Your task to perform on an android device: turn off airplane mode Image 0: 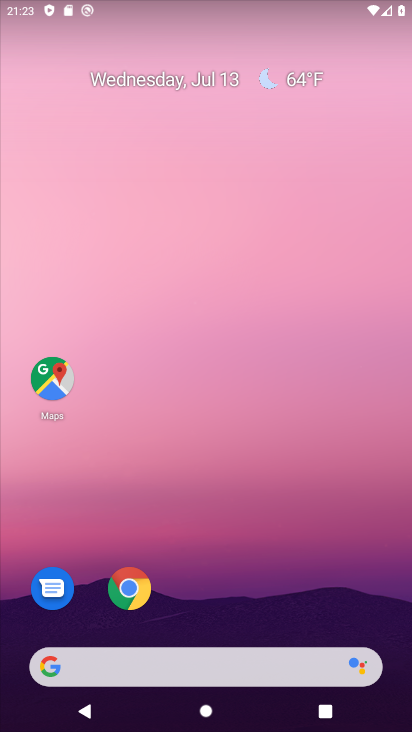
Step 0: drag from (363, 11) to (287, 560)
Your task to perform on an android device: turn off airplane mode Image 1: 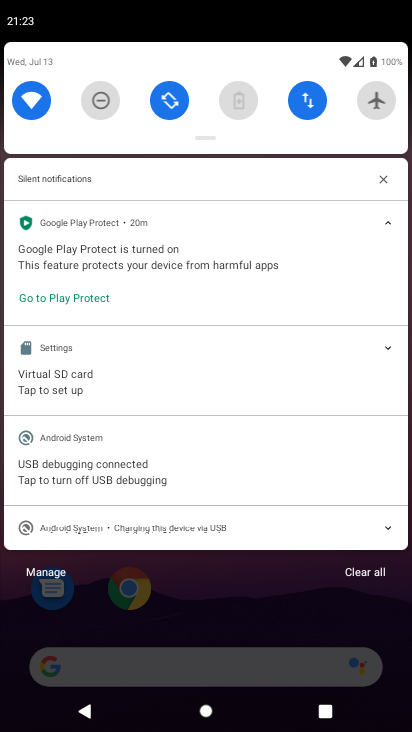
Step 1: task complete